Your task to perform on an android device: Go to Yahoo.com Image 0: 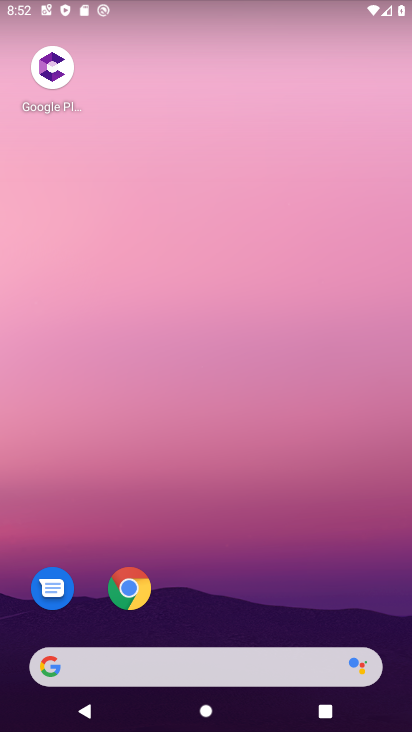
Step 0: drag from (319, 510) to (301, 97)
Your task to perform on an android device: Go to Yahoo.com Image 1: 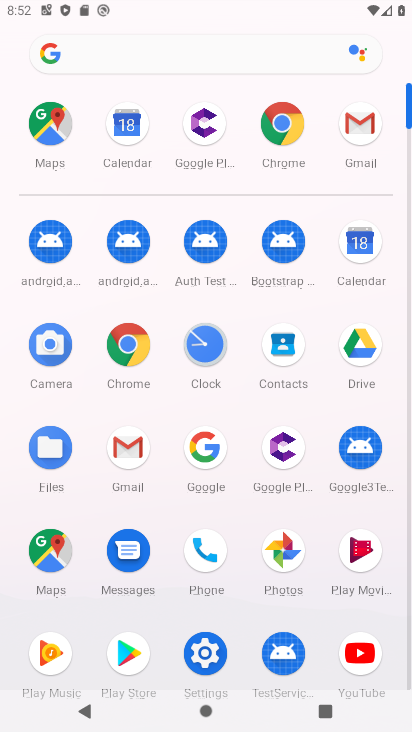
Step 1: click (113, 357)
Your task to perform on an android device: Go to Yahoo.com Image 2: 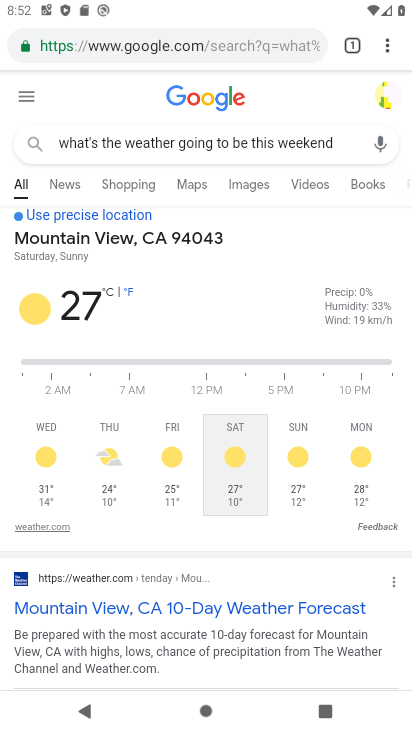
Step 2: click (222, 33)
Your task to perform on an android device: Go to Yahoo.com Image 3: 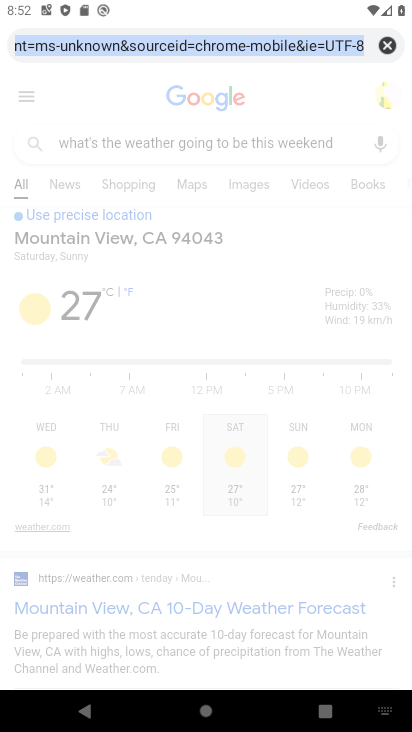
Step 3: click (387, 40)
Your task to perform on an android device: Go to Yahoo.com Image 4: 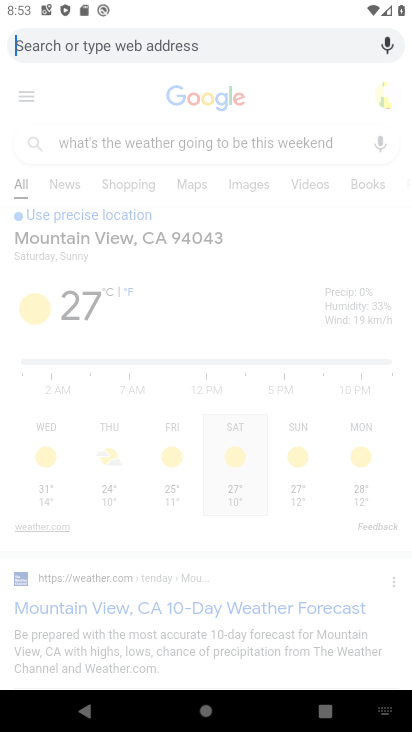
Step 4: type "yahoo.com"
Your task to perform on an android device: Go to Yahoo.com Image 5: 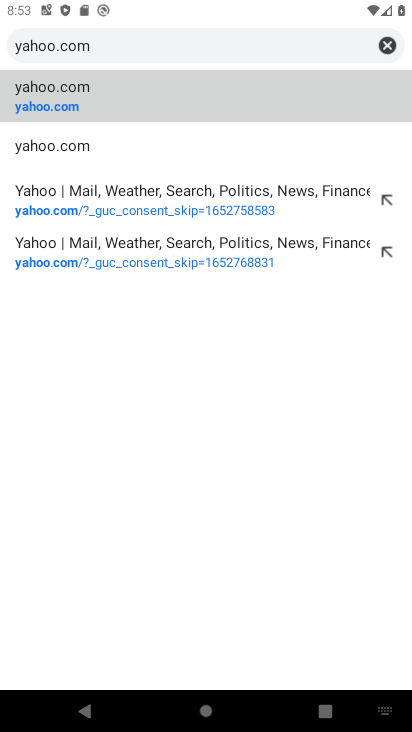
Step 5: click (191, 84)
Your task to perform on an android device: Go to Yahoo.com Image 6: 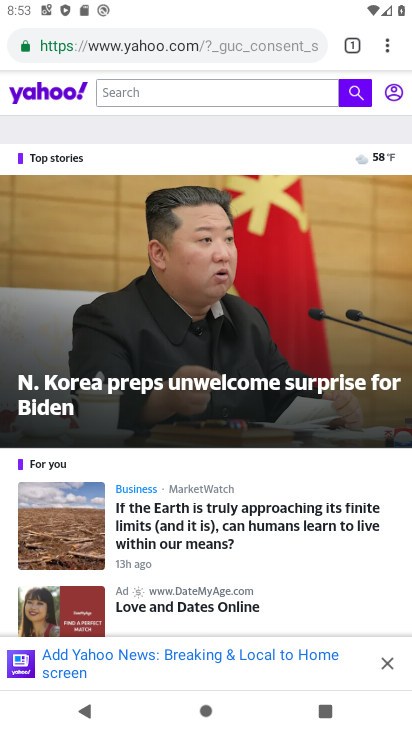
Step 6: task complete